Your task to perform on an android device: turn on showing notifications on the lock screen Image 0: 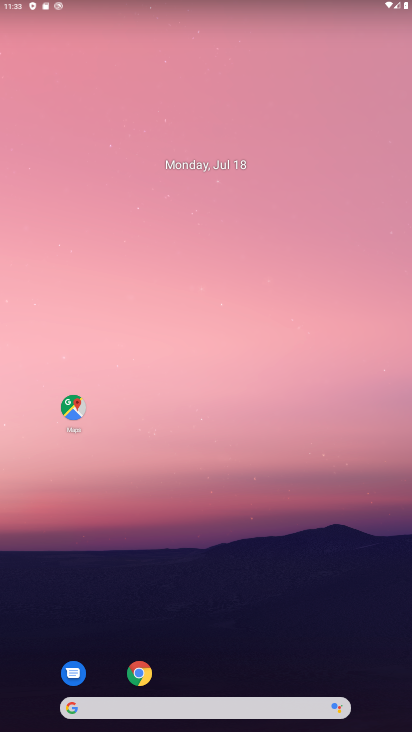
Step 0: drag from (213, 671) to (230, 154)
Your task to perform on an android device: turn on showing notifications on the lock screen Image 1: 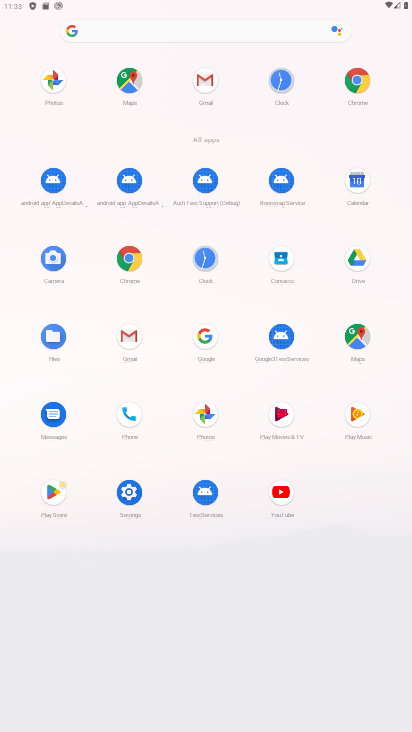
Step 1: click (128, 494)
Your task to perform on an android device: turn on showing notifications on the lock screen Image 2: 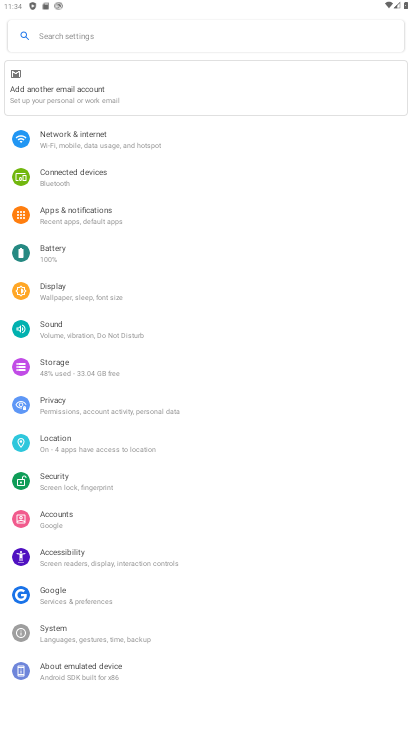
Step 2: click (119, 212)
Your task to perform on an android device: turn on showing notifications on the lock screen Image 3: 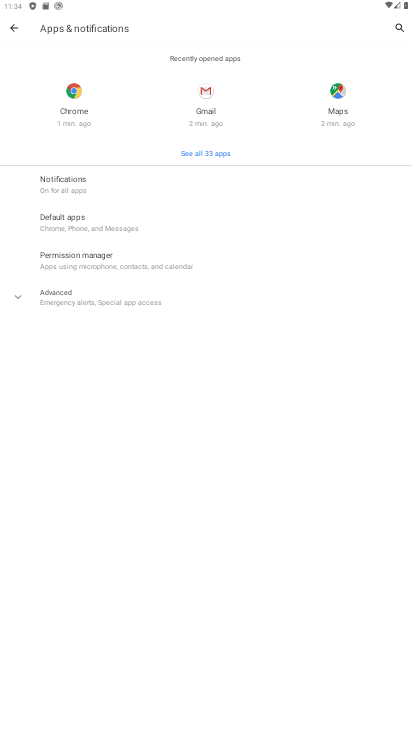
Step 3: click (45, 176)
Your task to perform on an android device: turn on showing notifications on the lock screen Image 4: 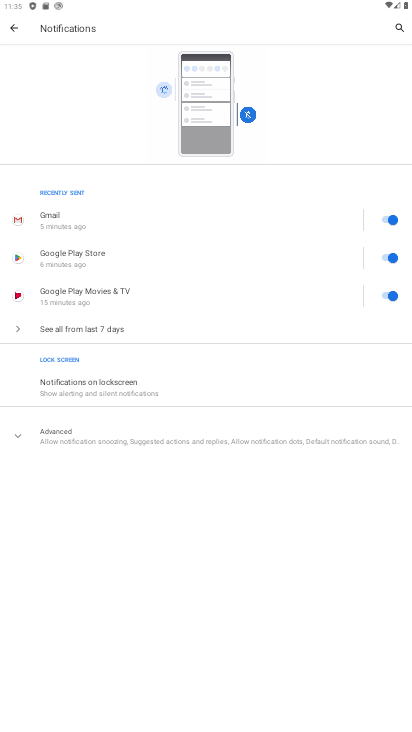
Step 4: click (87, 387)
Your task to perform on an android device: turn on showing notifications on the lock screen Image 5: 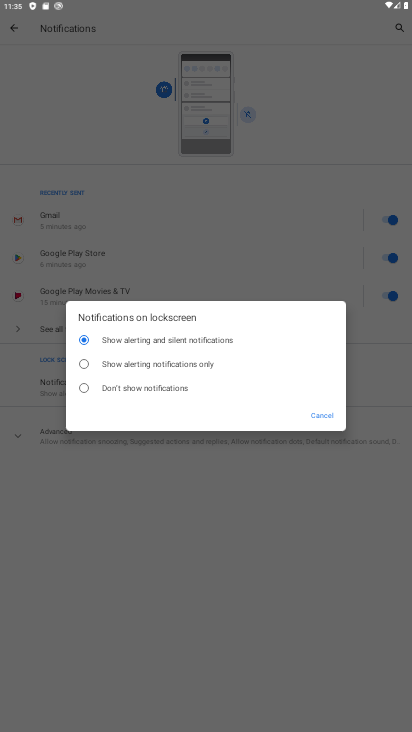
Step 5: click (81, 357)
Your task to perform on an android device: turn on showing notifications on the lock screen Image 6: 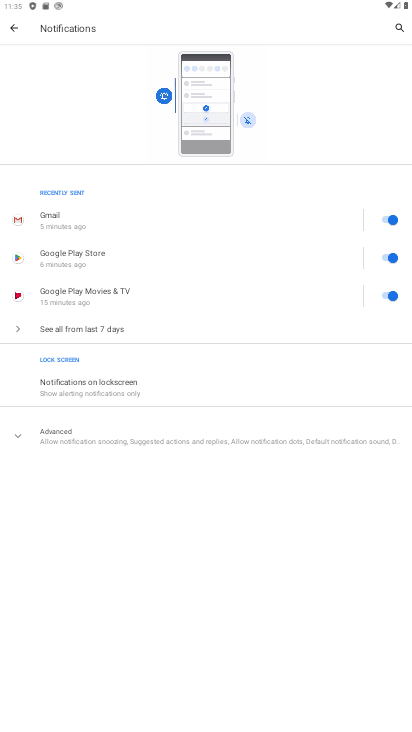
Step 6: task complete